Your task to perform on an android device: Go to Wikipedia Image 0: 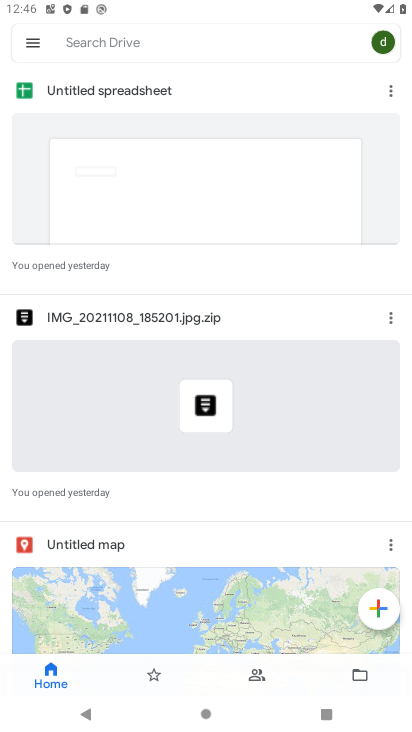
Step 0: press home button
Your task to perform on an android device: Go to Wikipedia Image 1: 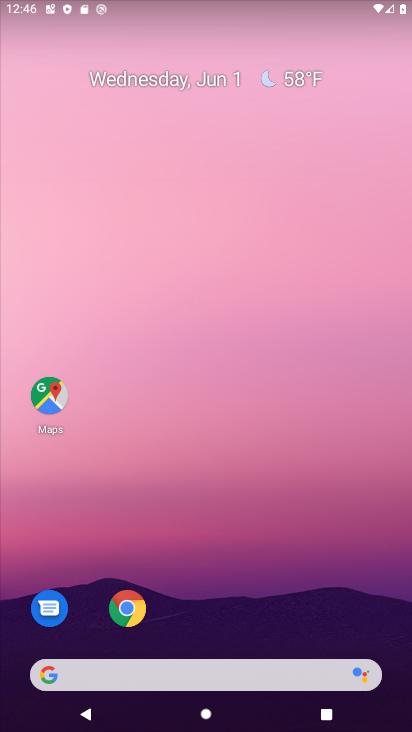
Step 1: click (83, 682)
Your task to perform on an android device: Go to Wikipedia Image 2: 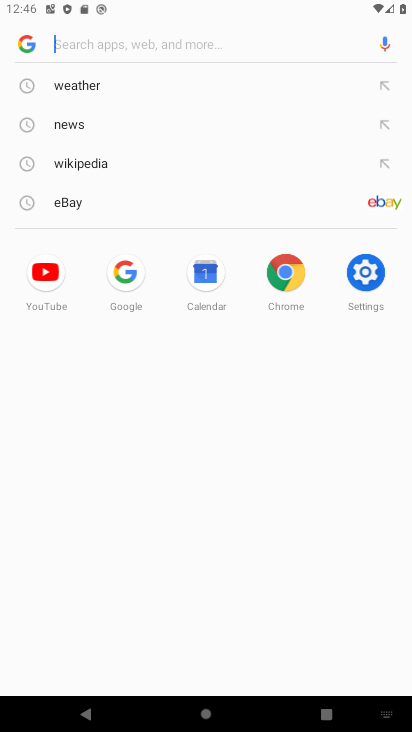
Step 2: click (70, 165)
Your task to perform on an android device: Go to Wikipedia Image 3: 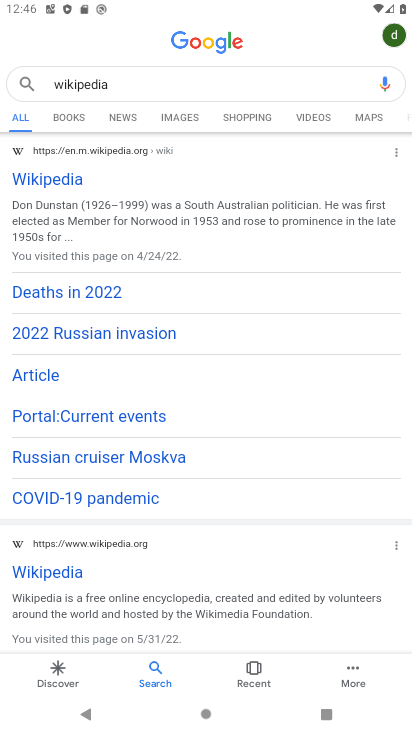
Step 3: click (13, 179)
Your task to perform on an android device: Go to Wikipedia Image 4: 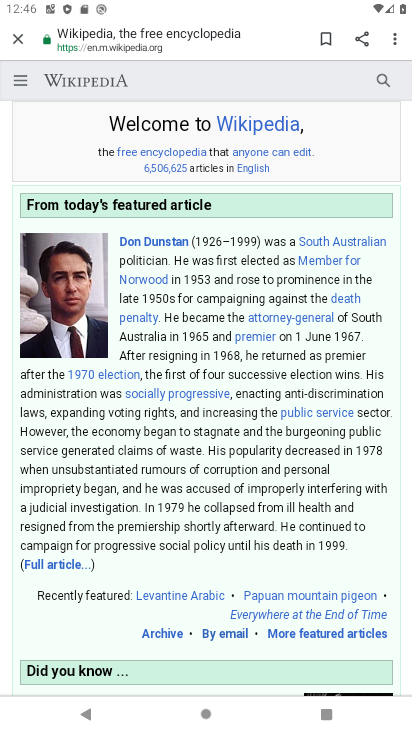
Step 4: task complete